Your task to perform on an android device: turn on translation in the chrome app Image 0: 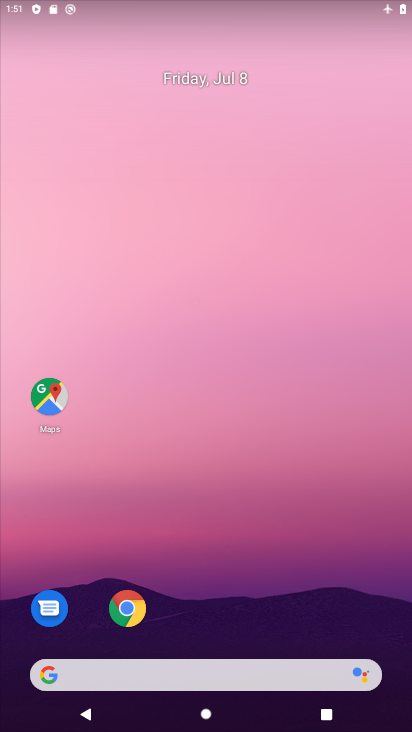
Step 0: click (131, 611)
Your task to perform on an android device: turn on translation in the chrome app Image 1: 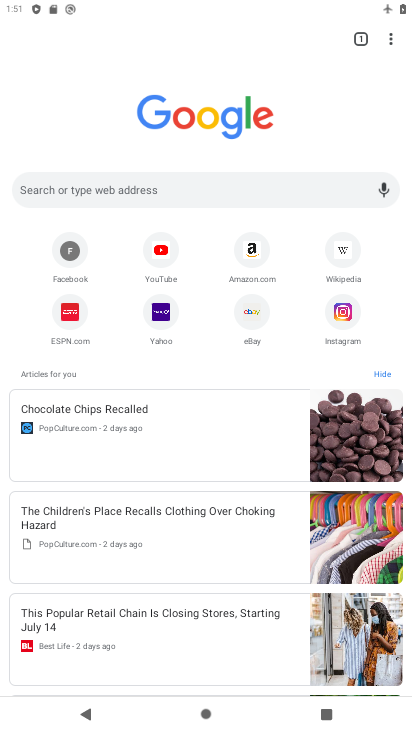
Step 1: click (399, 37)
Your task to perform on an android device: turn on translation in the chrome app Image 2: 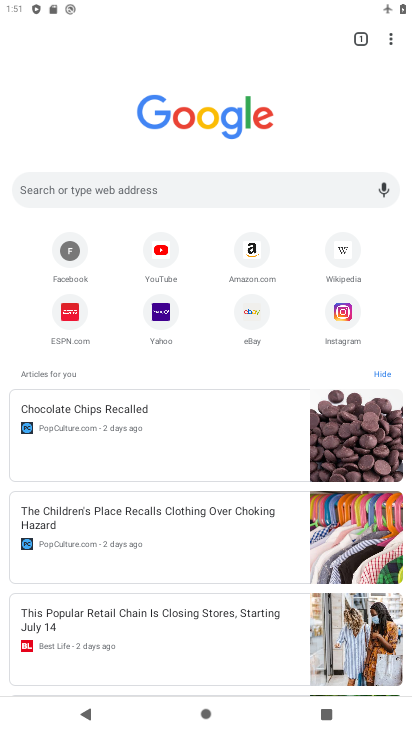
Step 2: click (391, 34)
Your task to perform on an android device: turn on translation in the chrome app Image 3: 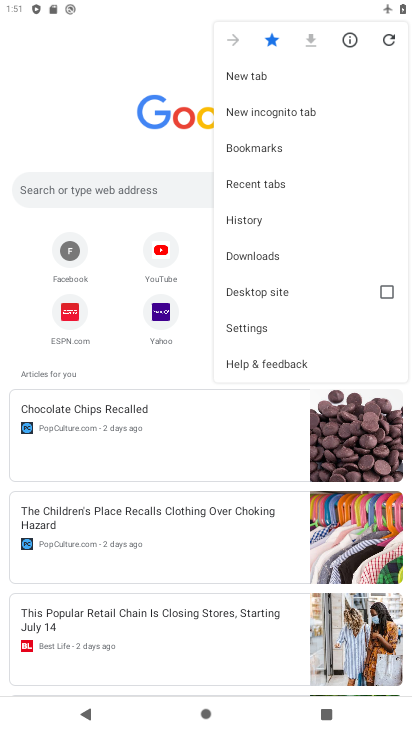
Step 3: click (270, 323)
Your task to perform on an android device: turn on translation in the chrome app Image 4: 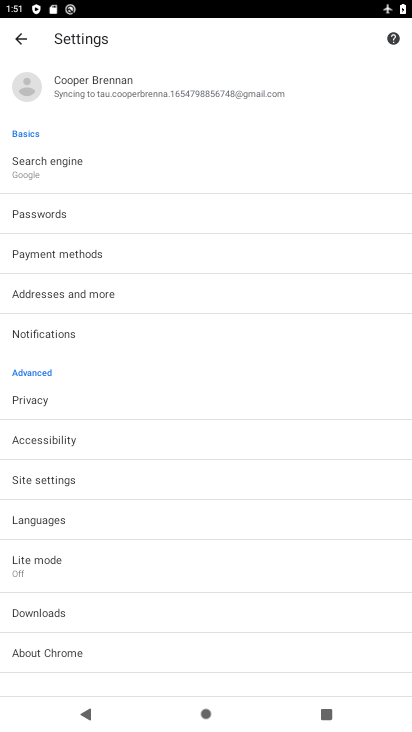
Step 4: click (68, 519)
Your task to perform on an android device: turn on translation in the chrome app Image 5: 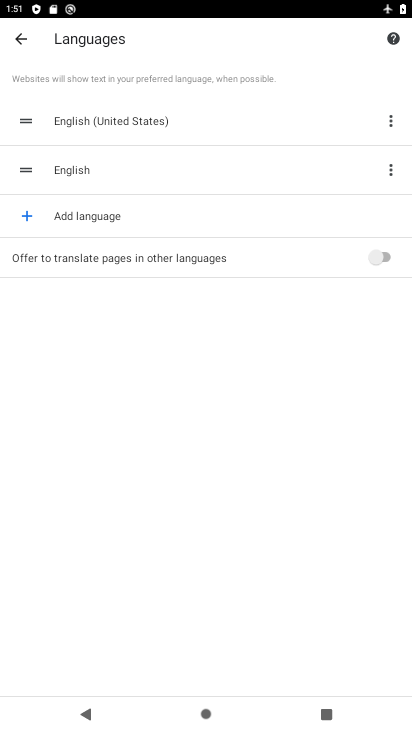
Step 5: click (384, 258)
Your task to perform on an android device: turn on translation in the chrome app Image 6: 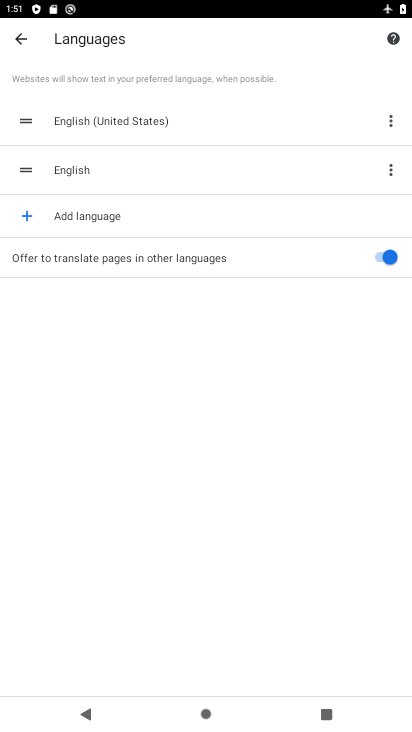
Step 6: task complete